Your task to perform on an android device: What's the weather going to be tomorrow? Image 0: 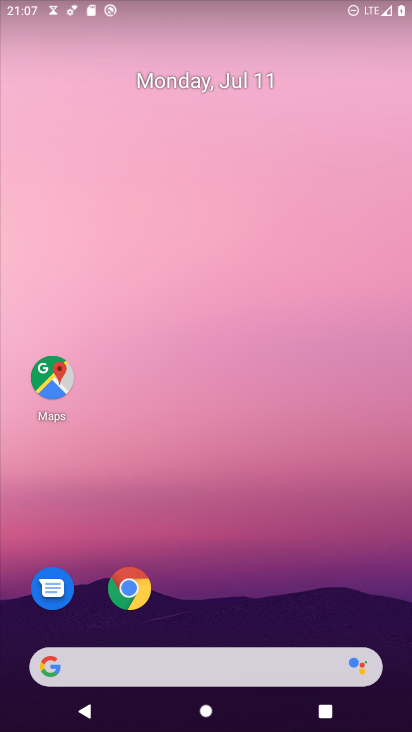
Step 0: press home button
Your task to perform on an android device: What's the weather going to be tomorrow? Image 1: 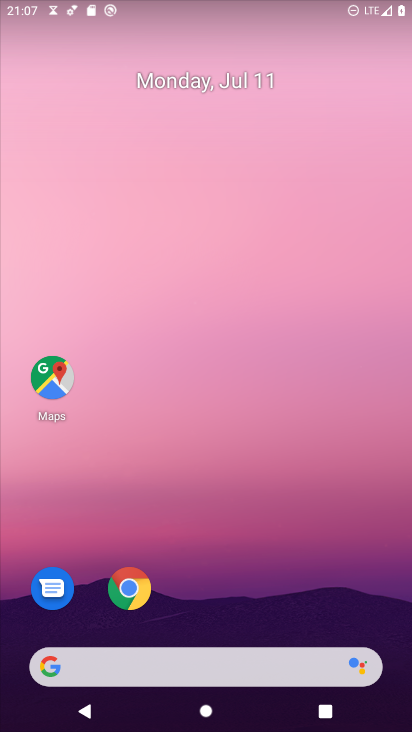
Step 1: click (60, 674)
Your task to perform on an android device: What's the weather going to be tomorrow? Image 2: 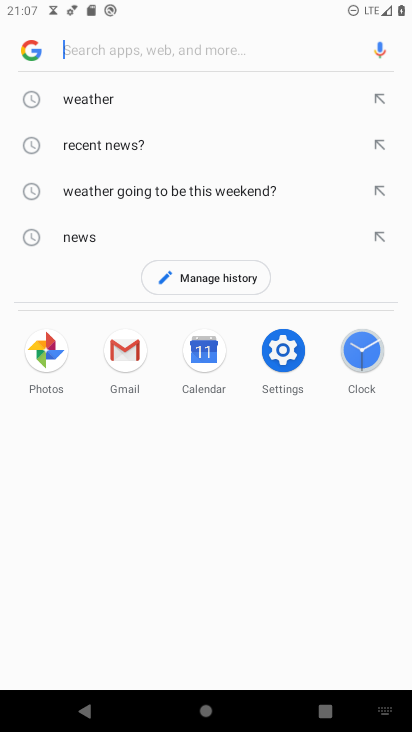
Step 2: type "weather going to be tomorrow?"
Your task to perform on an android device: What's the weather going to be tomorrow? Image 3: 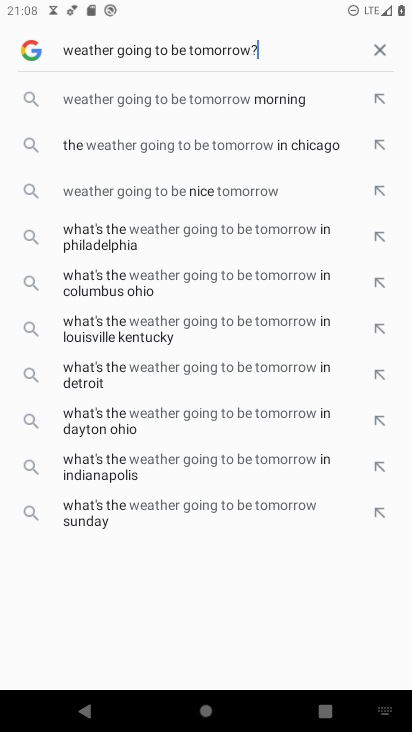
Step 3: press enter
Your task to perform on an android device: What's the weather going to be tomorrow? Image 4: 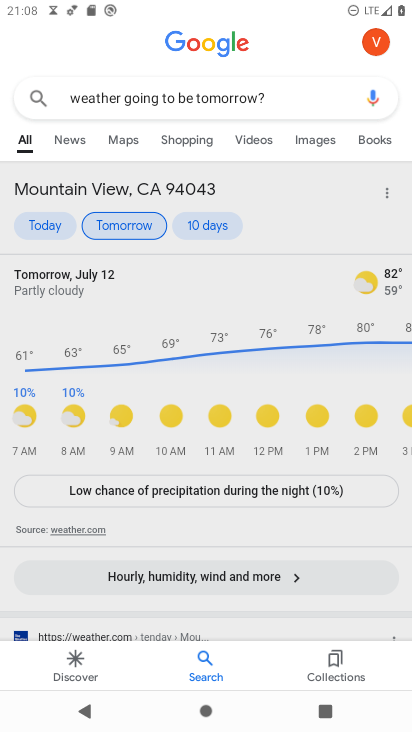
Step 4: task complete